Your task to perform on an android device: Show the shopping cart on newegg. Add "jbl charge 4" to the cart on newegg, then select checkout. Image 0: 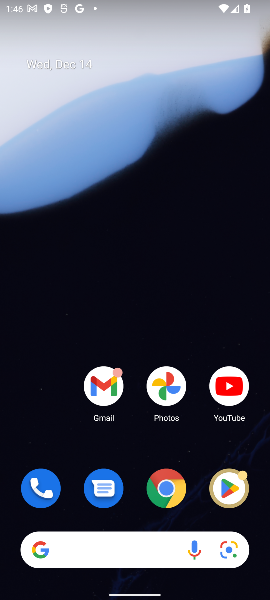
Step 0: drag from (106, 536) to (136, 285)
Your task to perform on an android device: Show the shopping cart on newegg. Add "jbl charge 4" to the cart on newegg, then select checkout. Image 1: 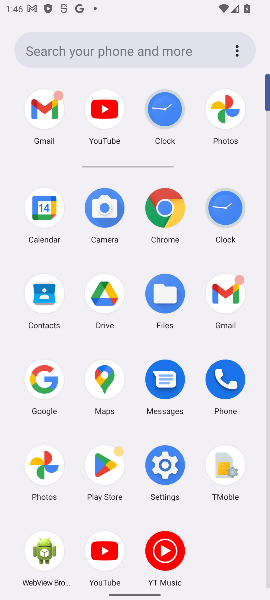
Step 1: click (45, 377)
Your task to perform on an android device: Show the shopping cart on newegg. Add "jbl charge 4" to the cart on newegg, then select checkout. Image 2: 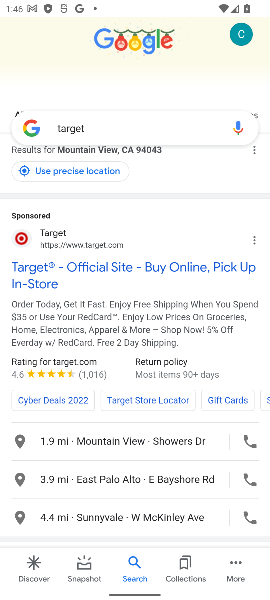
Step 2: click (80, 127)
Your task to perform on an android device: Show the shopping cart on newegg. Add "jbl charge 4" to the cart on newegg, then select checkout. Image 3: 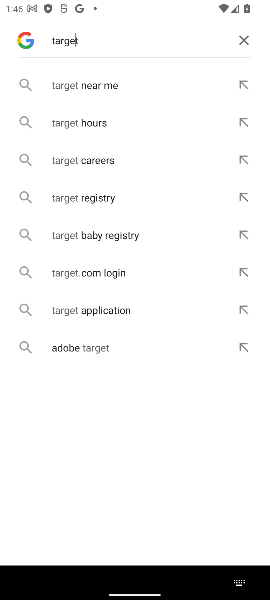
Step 3: click (238, 38)
Your task to perform on an android device: Show the shopping cart on newegg. Add "jbl charge 4" to the cart on newegg, then select checkout. Image 4: 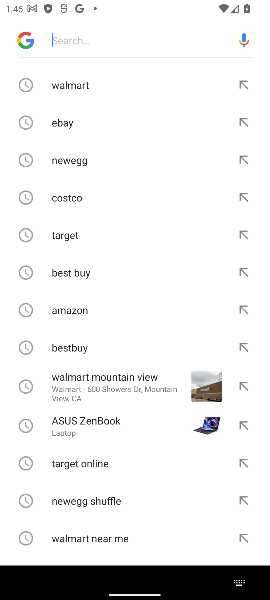
Step 4: click (66, 156)
Your task to perform on an android device: Show the shopping cart on newegg. Add "jbl charge 4" to the cart on newegg, then select checkout. Image 5: 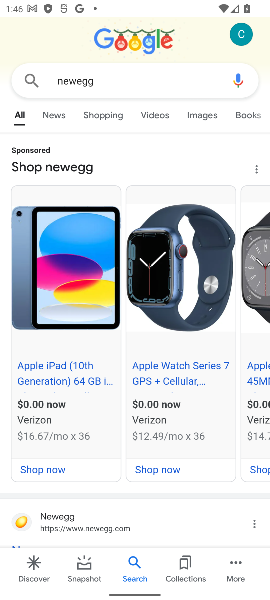
Step 5: click (75, 82)
Your task to perform on an android device: Show the shopping cart on newegg. Add "jbl charge 4" to the cart on newegg, then select checkout. Image 6: 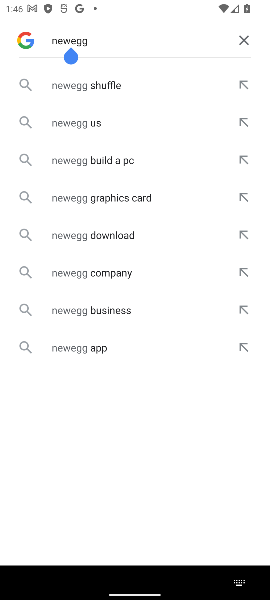
Step 6: click (246, 41)
Your task to perform on an android device: Show the shopping cart on newegg. Add "jbl charge 4" to the cart on newegg, then select checkout. Image 7: 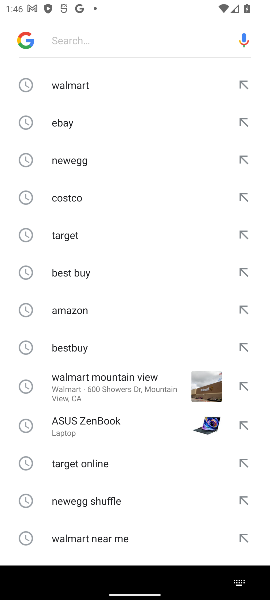
Step 7: click (62, 156)
Your task to perform on an android device: Show the shopping cart on newegg. Add "jbl charge 4" to the cart on newegg, then select checkout. Image 8: 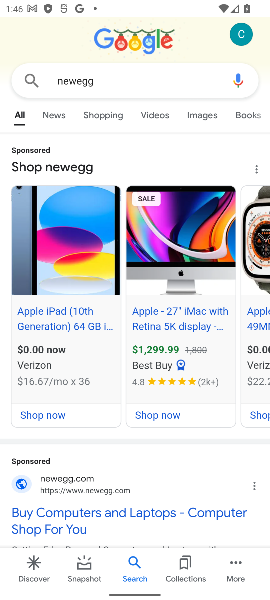
Step 8: click (68, 516)
Your task to perform on an android device: Show the shopping cart on newegg. Add "jbl charge 4" to the cart on newegg, then select checkout. Image 9: 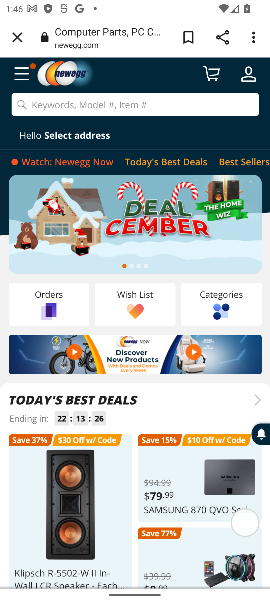
Step 9: click (79, 107)
Your task to perform on an android device: Show the shopping cart on newegg. Add "jbl charge 4" to the cart on newegg, then select checkout. Image 10: 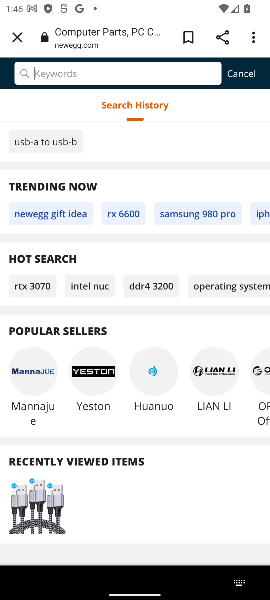
Step 10: type "jbl charge 4"
Your task to perform on an android device: Show the shopping cart on newegg. Add "jbl charge 4" to the cart on newegg, then select checkout. Image 11: 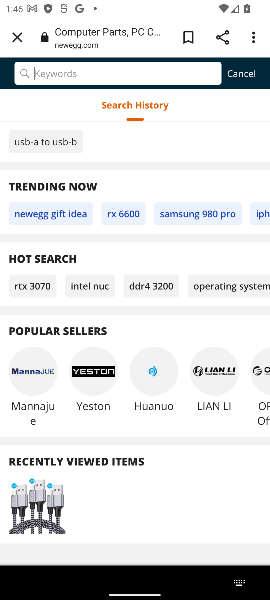
Step 11: click (18, 72)
Your task to perform on an android device: Show the shopping cart on newegg. Add "jbl charge 4" to the cart on newegg, then select checkout. Image 12: 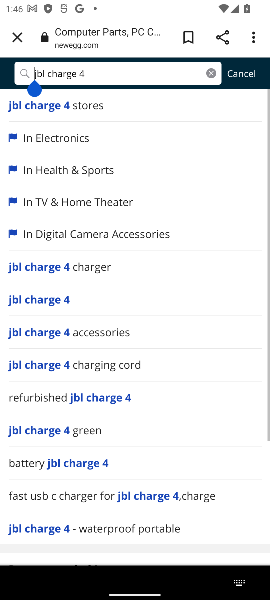
Step 12: click (69, 104)
Your task to perform on an android device: Show the shopping cart on newegg. Add "jbl charge 4" to the cart on newegg, then select checkout. Image 13: 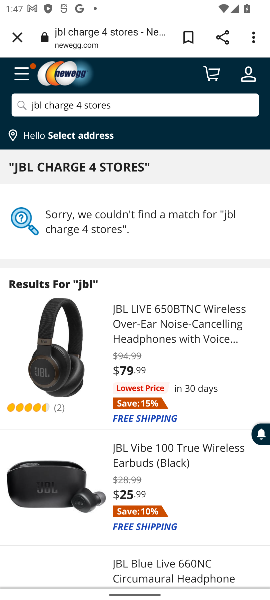
Step 13: click (120, 322)
Your task to perform on an android device: Show the shopping cart on newegg. Add "jbl charge 4" to the cart on newegg, then select checkout. Image 14: 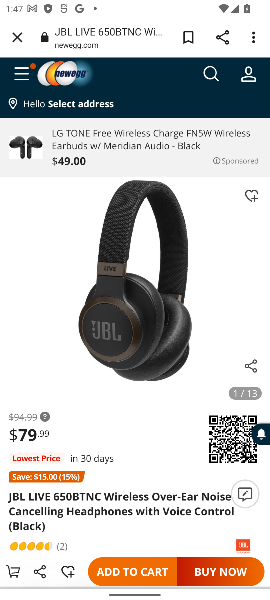
Step 14: click (108, 566)
Your task to perform on an android device: Show the shopping cart on newegg. Add "jbl charge 4" to the cart on newegg, then select checkout. Image 15: 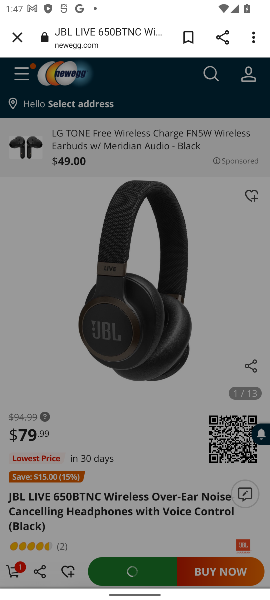
Step 15: click (18, 574)
Your task to perform on an android device: Show the shopping cart on newegg. Add "jbl charge 4" to the cart on newegg, then select checkout. Image 16: 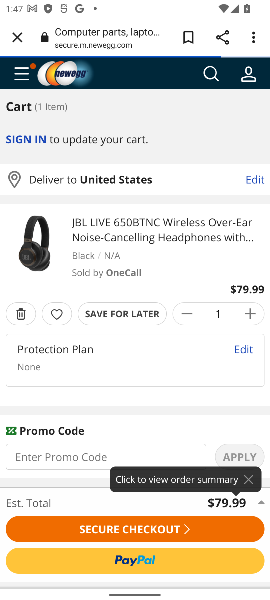
Step 16: click (112, 531)
Your task to perform on an android device: Show the shopping cart on newegg. Add "jbl charge 4" to the cart on newegg, then select checkout. Image 17: 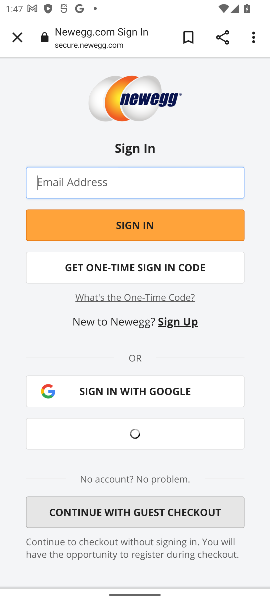
Step 17: task complete